Your task to perform on an android device: open a new tab in the chrome app Image 0: 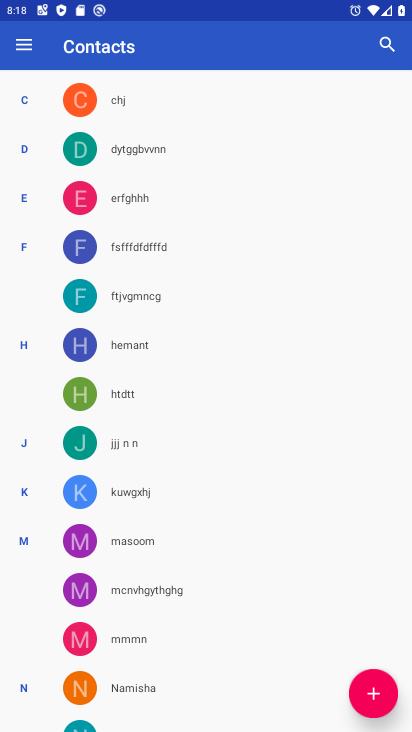
Step 0: press home button
Your task to perform on an android device: open a new tab in the chrome app Image 1: 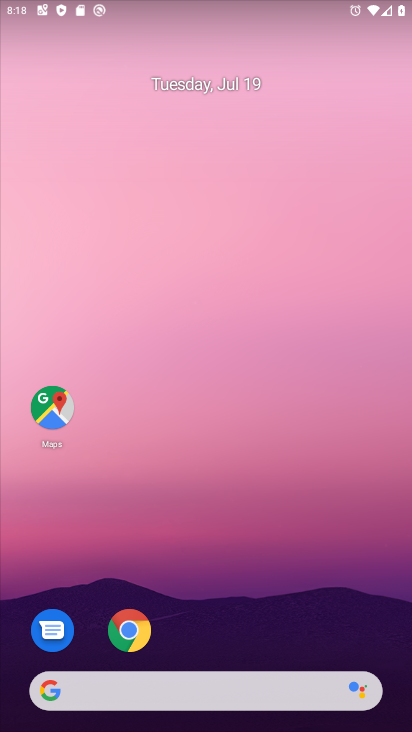
Step 1: click (124, 632)
Your task to perform on an android device: open a new tab in the chrome app Image 2: 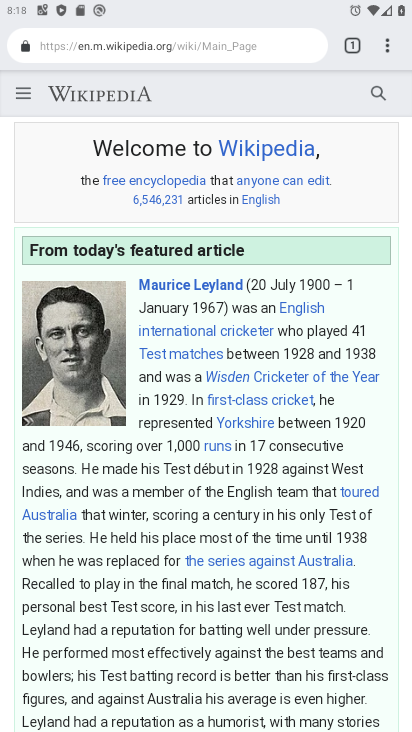
Step 2: click (357, 46)
Your task to perform on an android device: open a new tab in the chrome app Image 3: 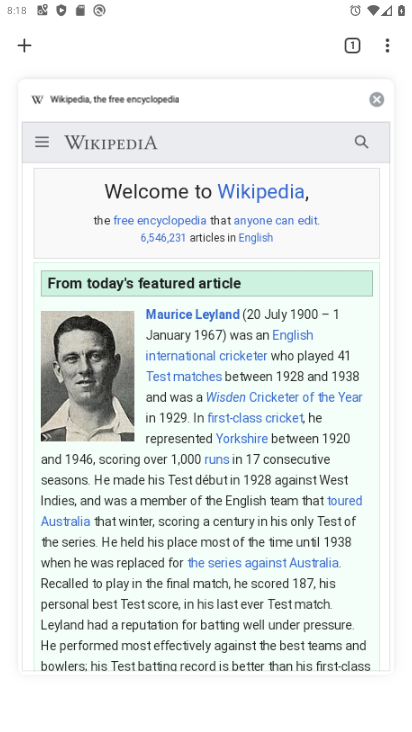
Step 3: click (24, 44)
Your task to perform on an android device: open a new tab in the chrome app Image 4: 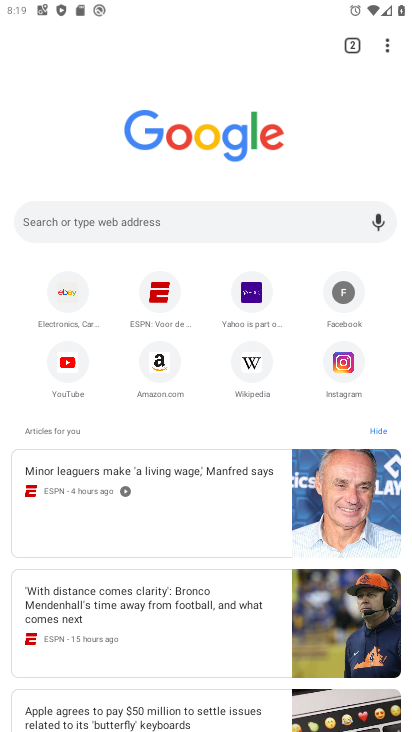
Step 4: task complete